Your task to perform on an android device: manage bookmarks in the chrome app Image 0: 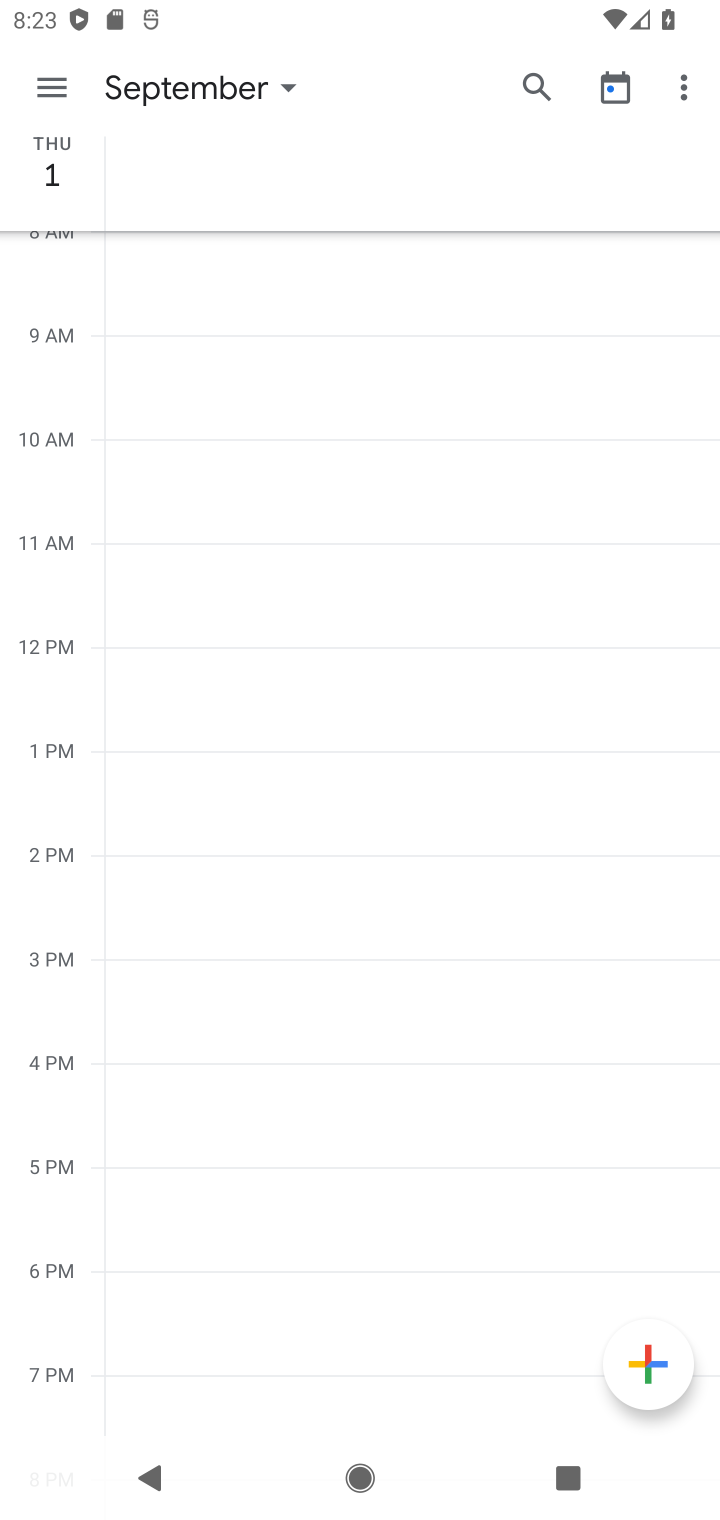
Step 0: press home button
Your task to perform on an android device: manage bookmarks in the chrome app Image 1: 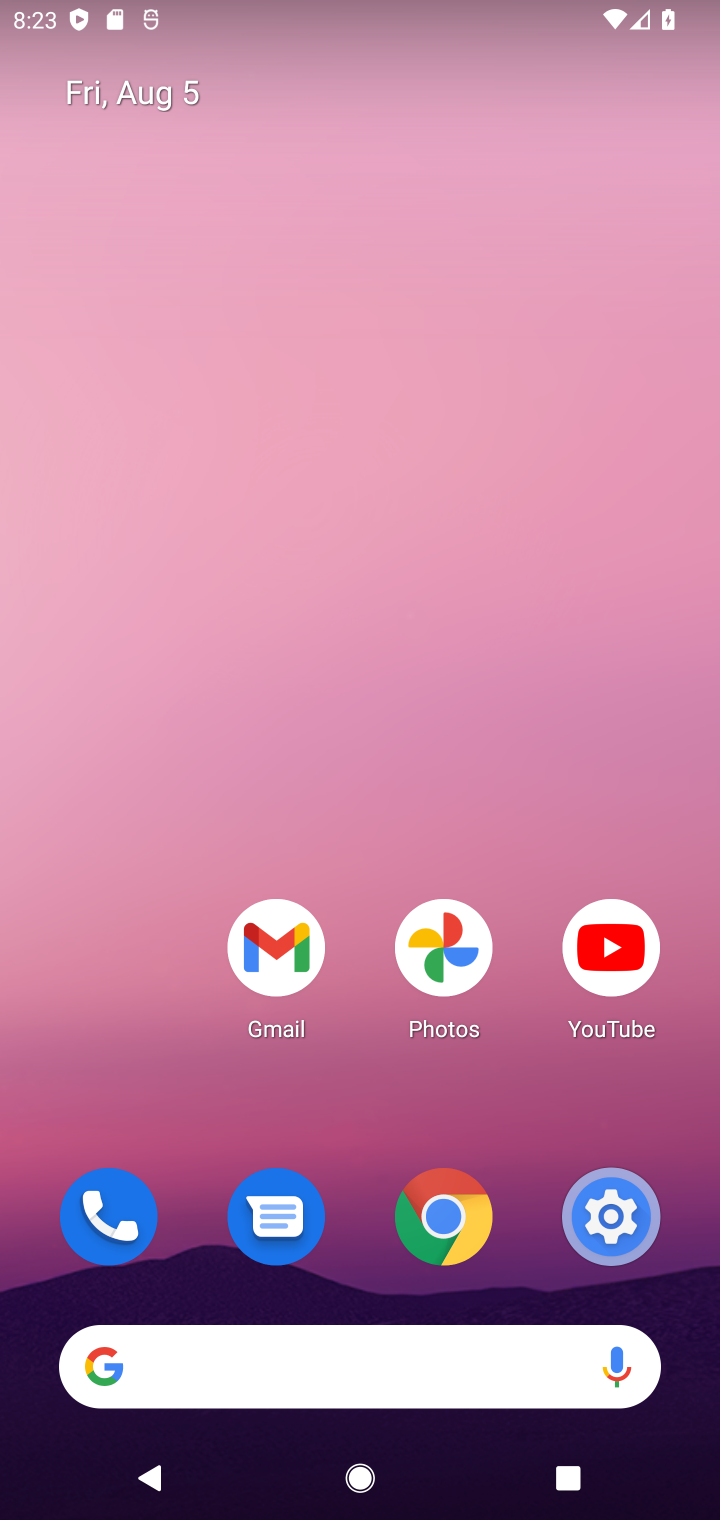
Step 1: drag from (347, 1281) to (365, 85)
Your task to perform on an android device: manage bookmarks in the chrome app Image 2: 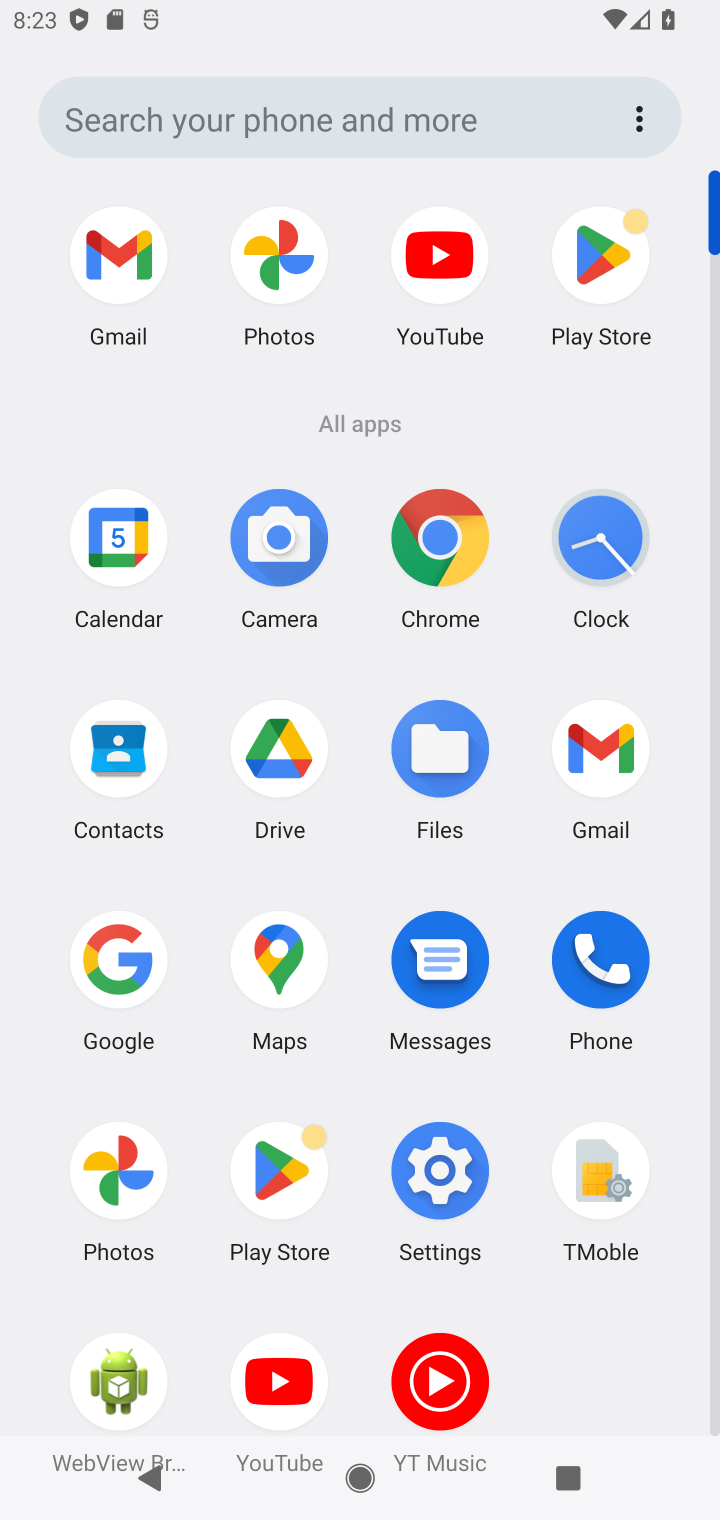
Step 2: click (435, 532)
Your task to perform on an android device: manage bookmarks in the chrome app Image 3: 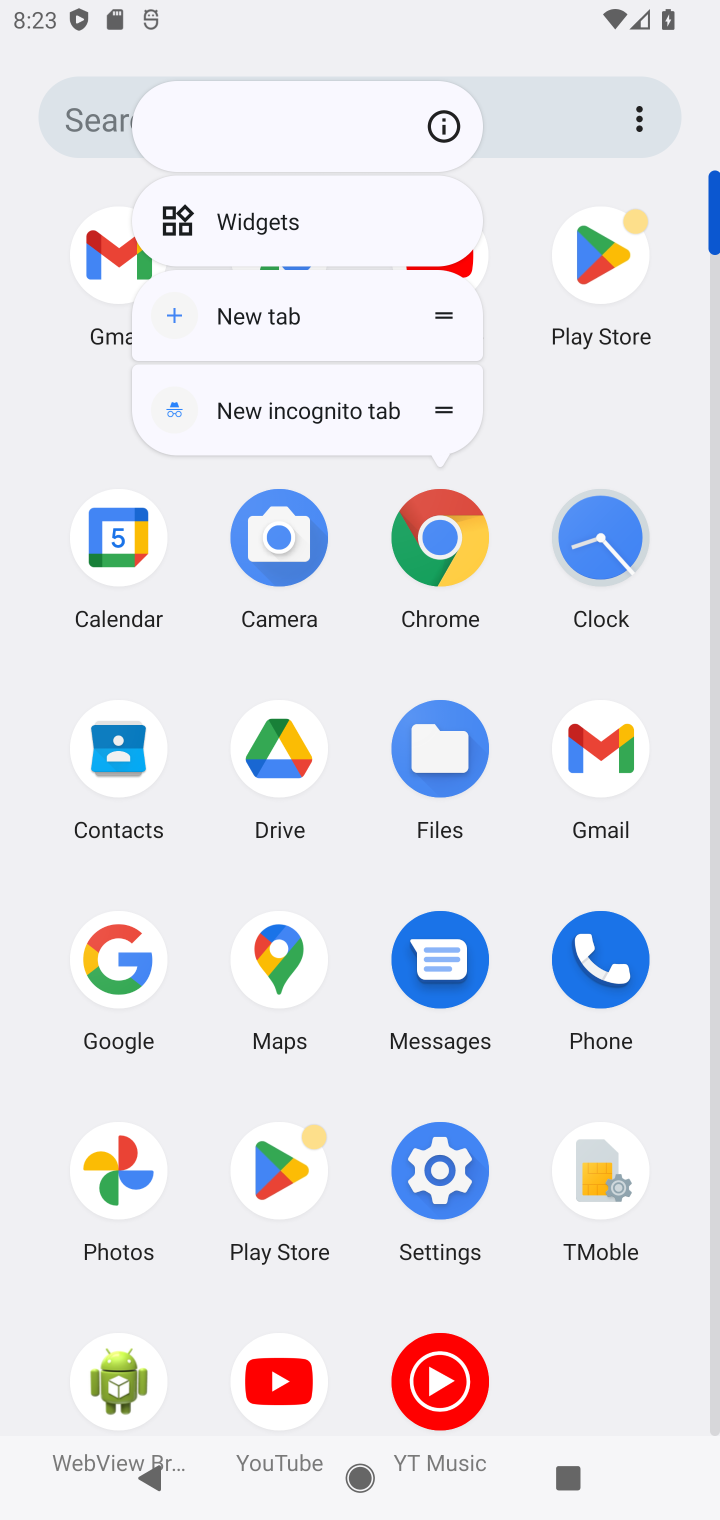
Step 3: click (431, 128)
Your task to perform on an android device: manage bookmarks in the chrome app Image 4: 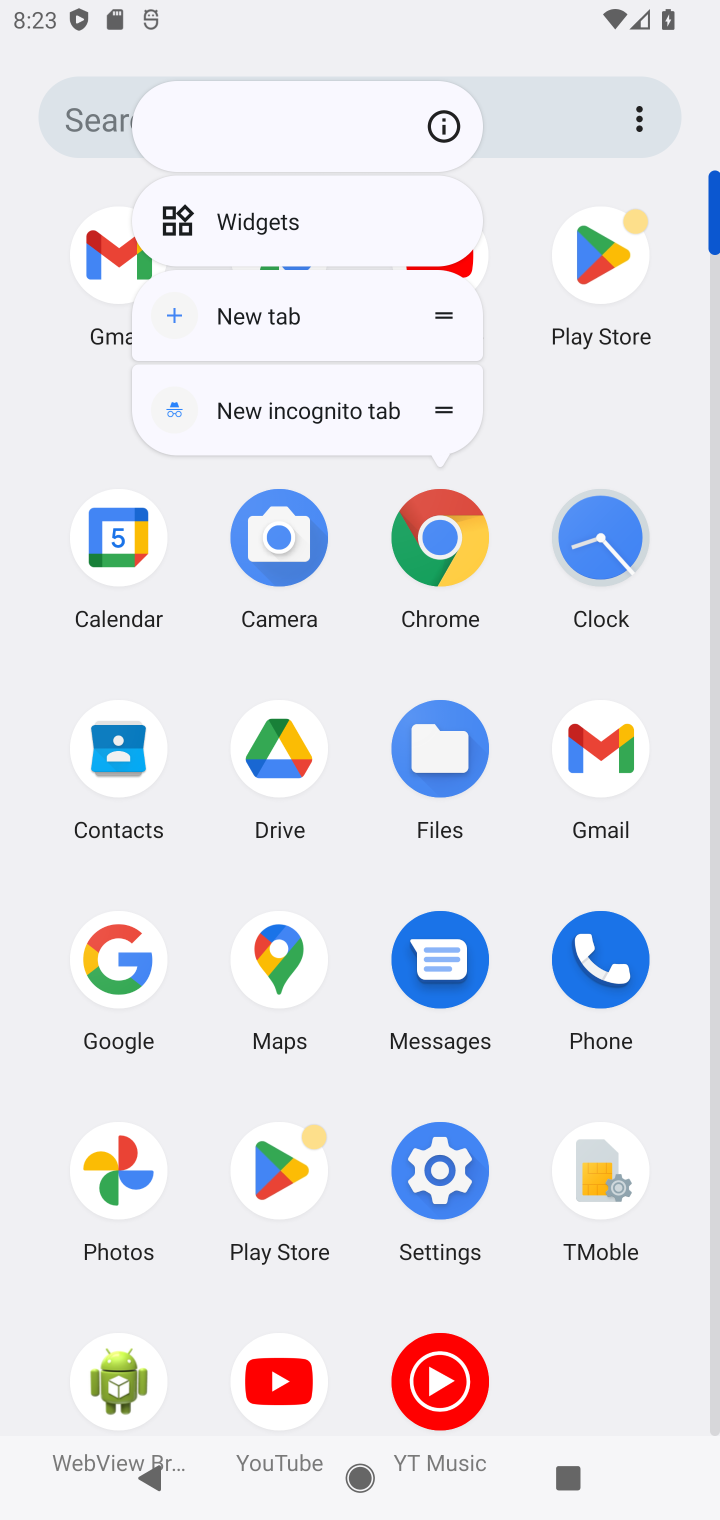
Step 4: click (439, 111)
Your task to perform on an android device: manage bookmarks in the chrome app Image 5: 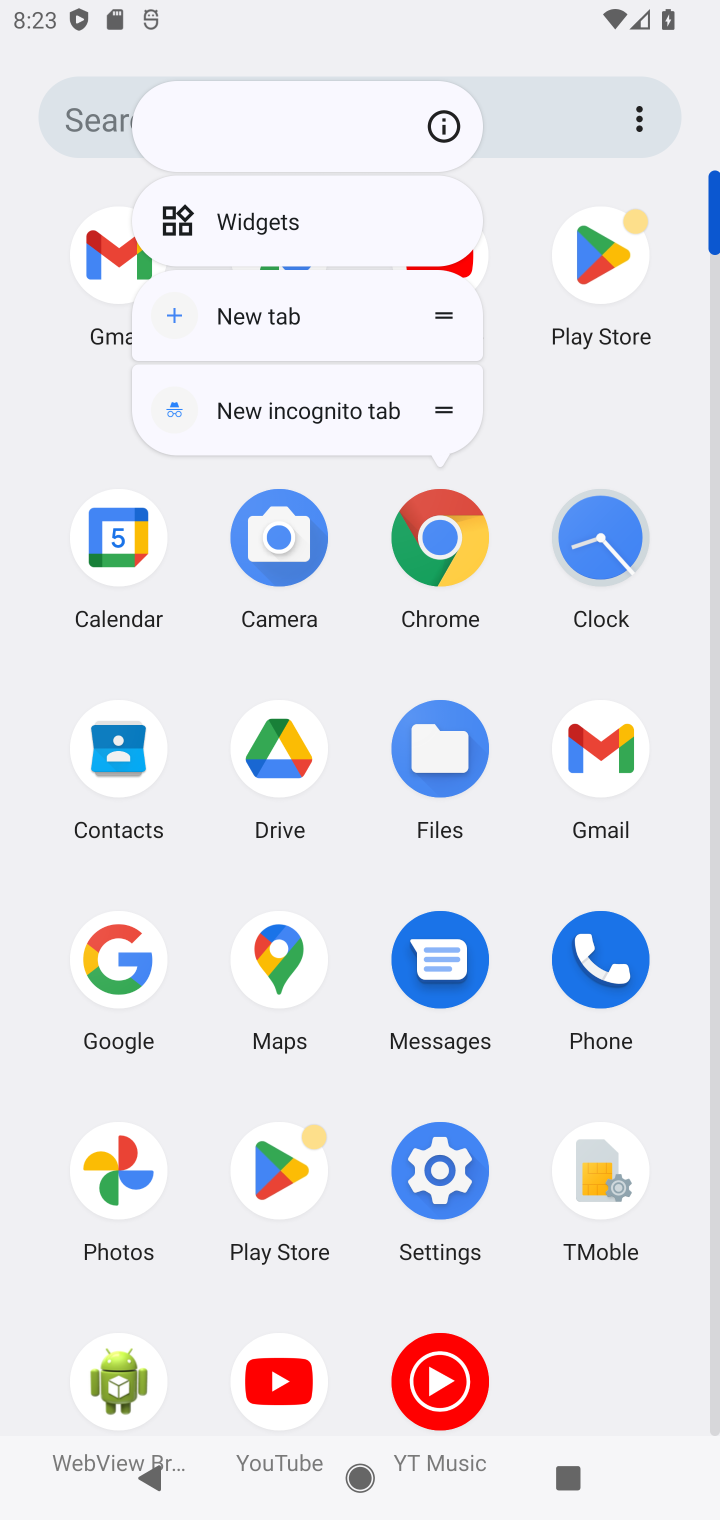
Step 5: click (445, 109)
Your task to perform on an android device: manage bookmarks in the chrome app Image 6: 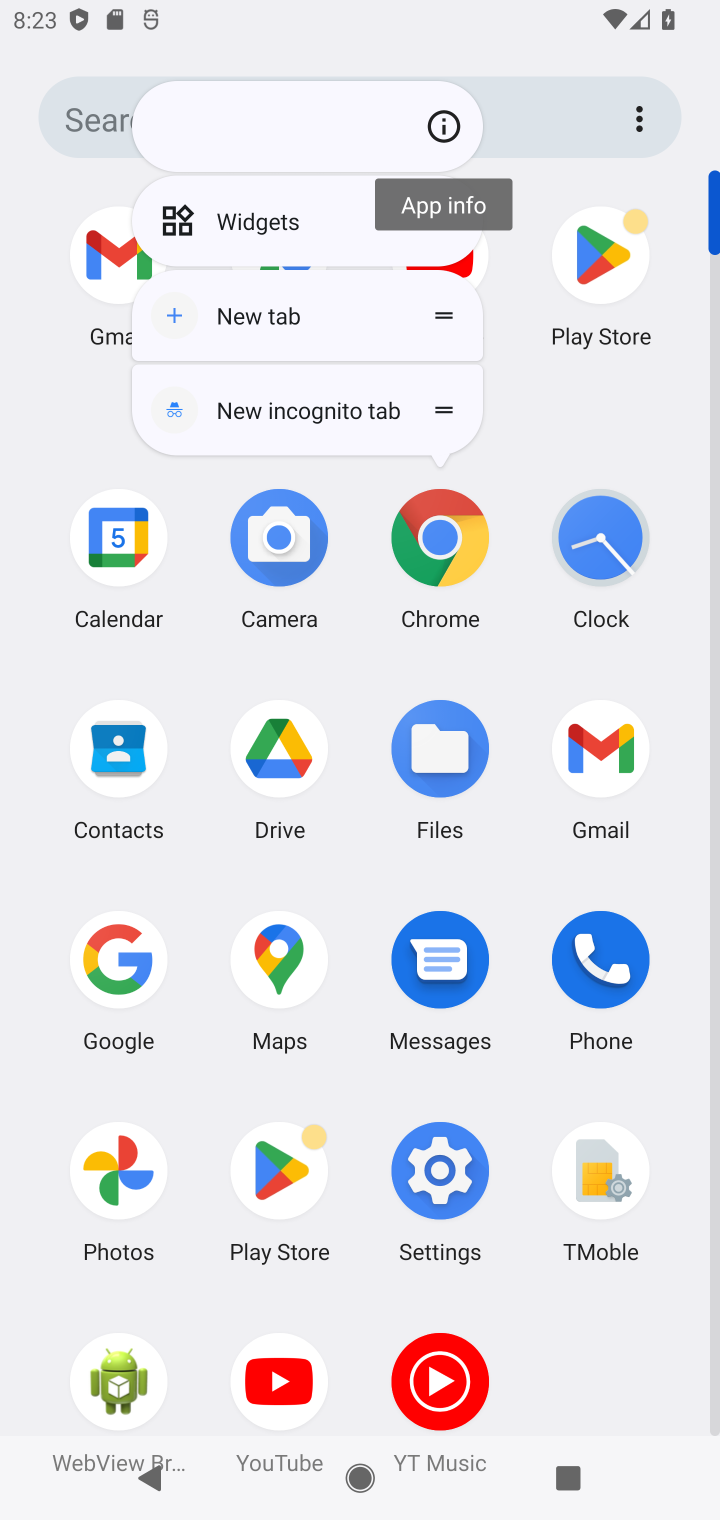
Step 6: click (436, 128)
Your task to perform on an android device: manage bookmarks in the chrome app Image 7: 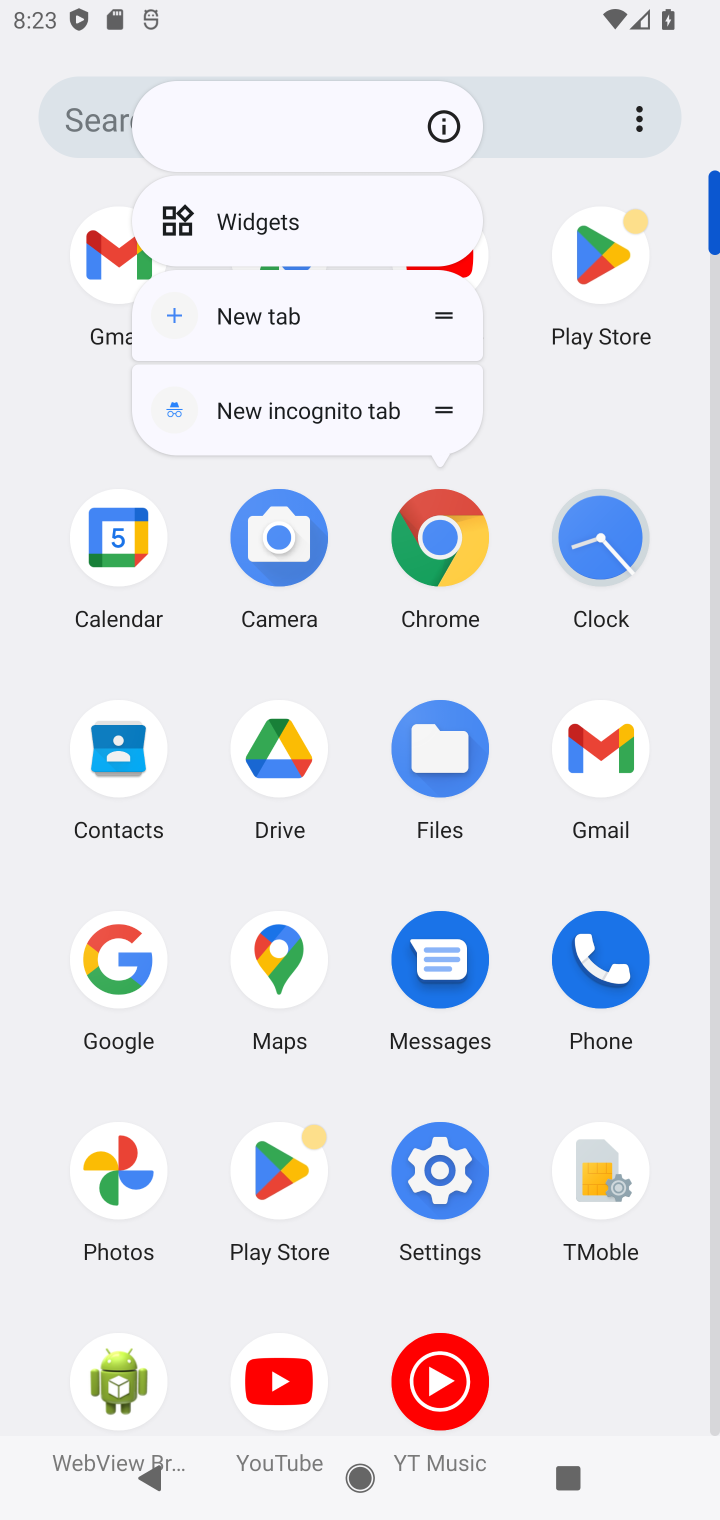
Step 7: click (419, 128)
Your task to perform on an android device: manage bookmarks in the chrome app Image 8: 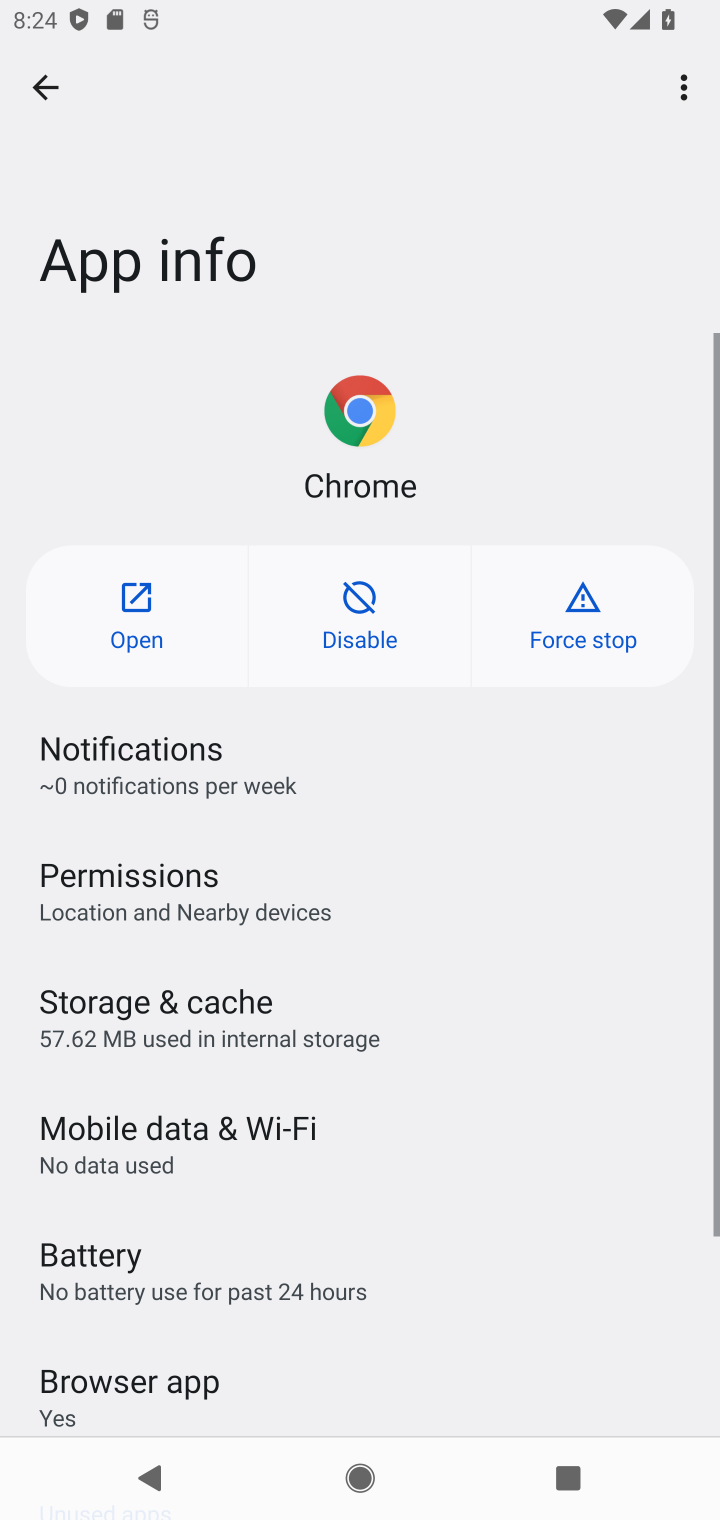
Step 8: click (125, 608)
Your task to perform on an android device: manage bookmarks in the chrome app Image 9: 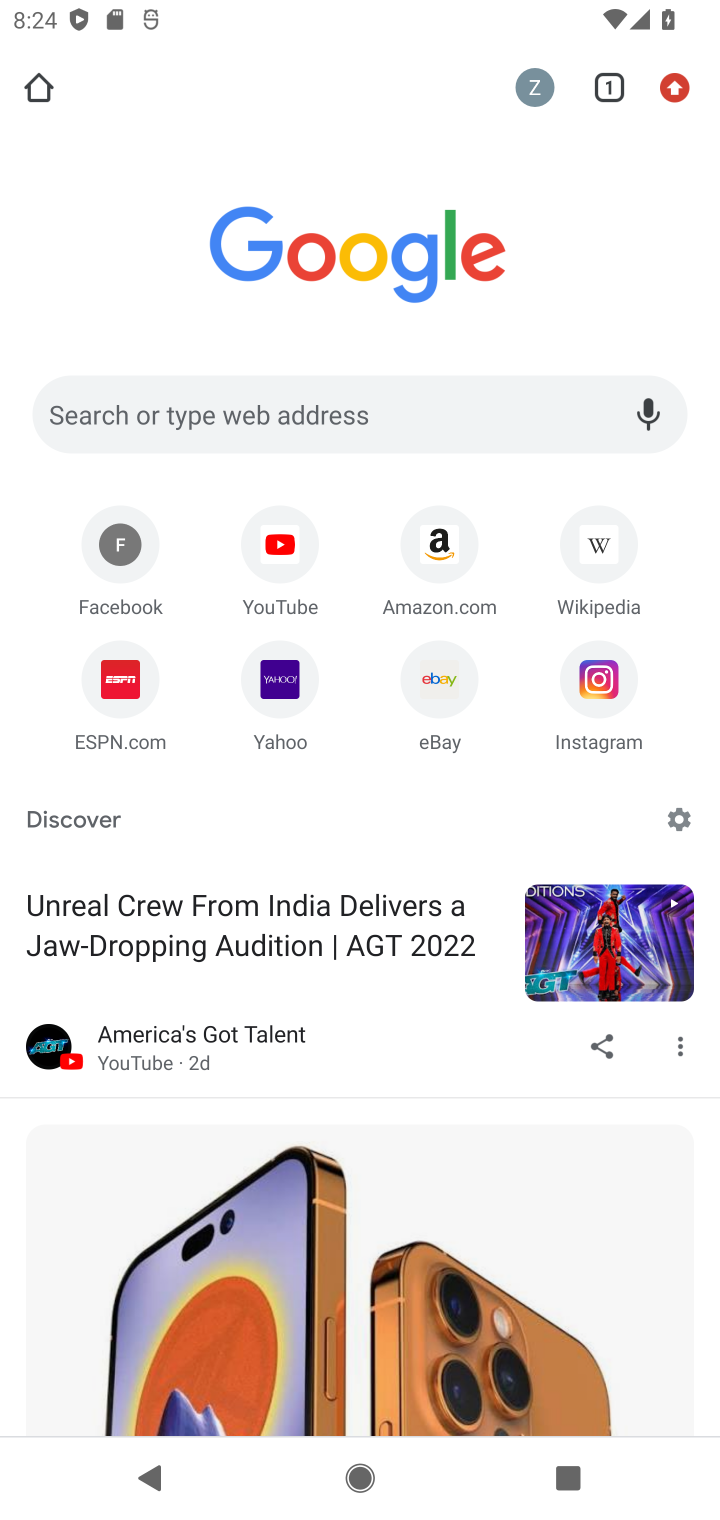
Step 9: drag from (681, 107) to (444, 609)
Your task to perform on an android device: manage bookmarks in the chrome app Image 10: 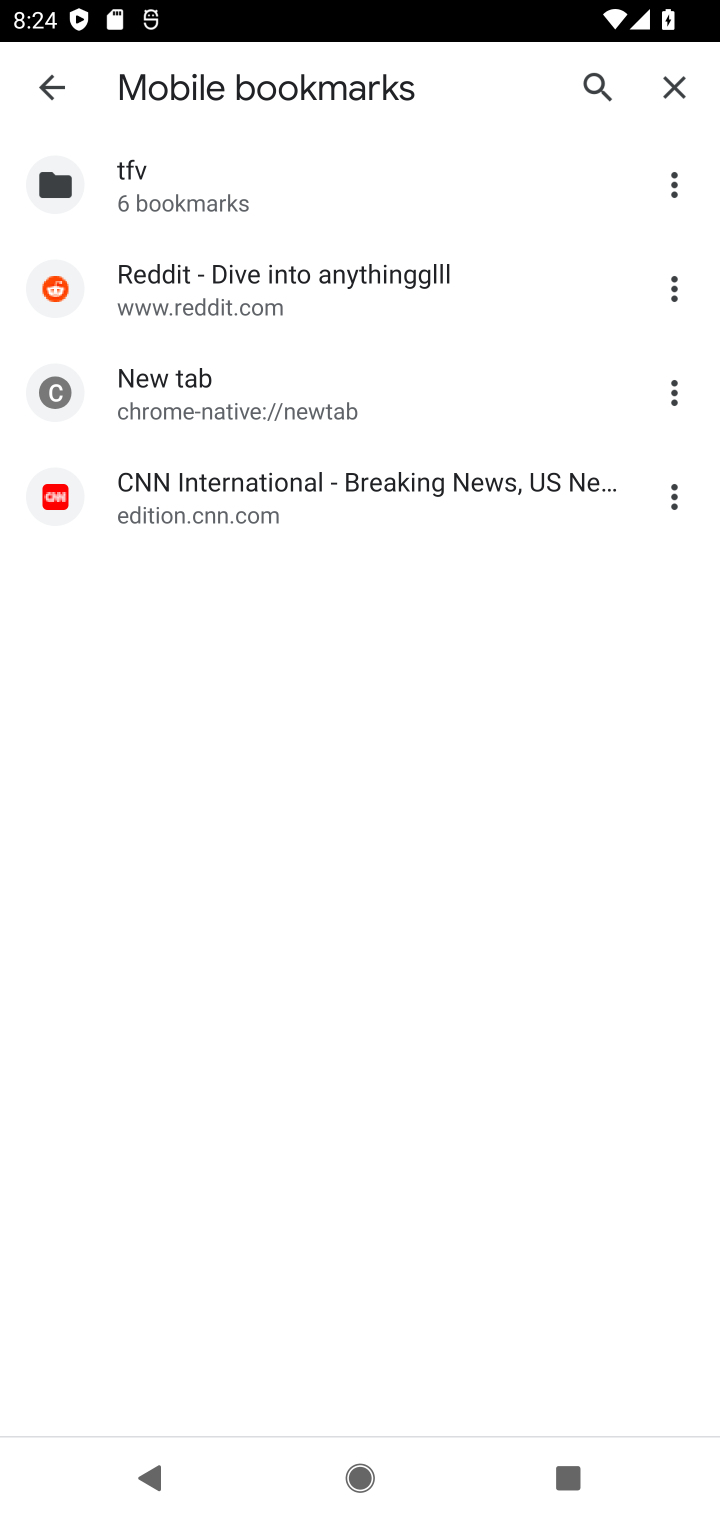
Step 10: click (679, 284)
Your task to perform on an android device: manage bookmarks in the chrome app Image 11: 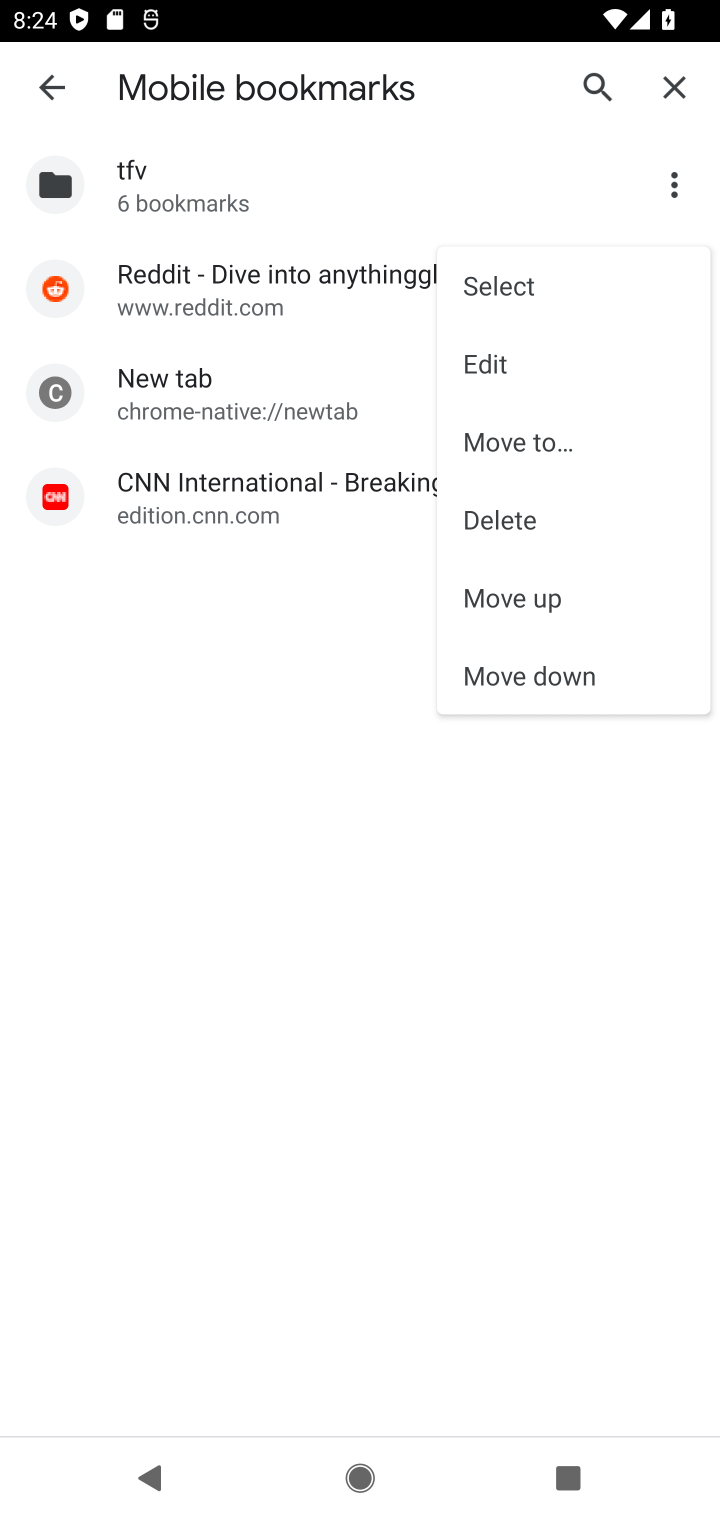
Step 11: click (541, 533)
Your task to perform on an android device: manage bookmarks in the chrome app Image 12: 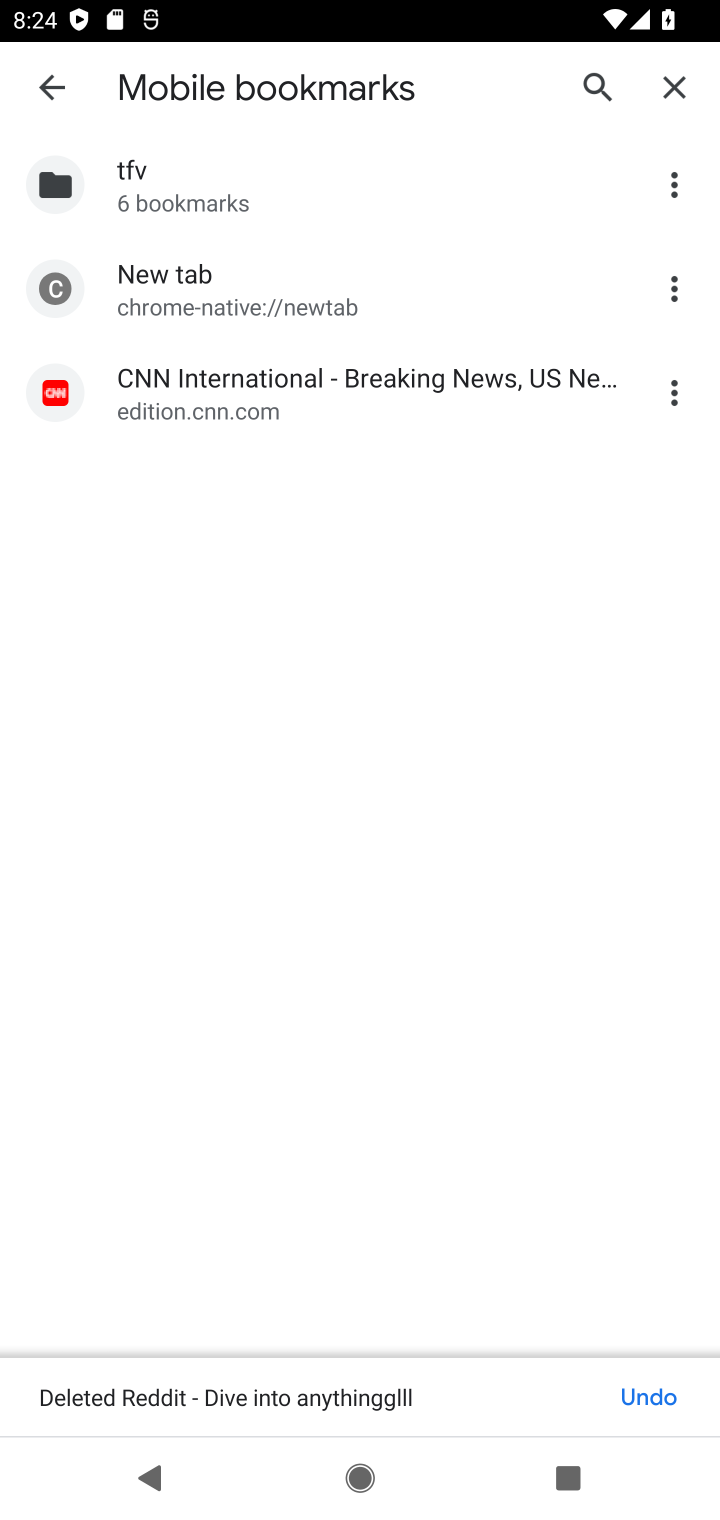
Step 12: task complete